Your task to perform on an android device: turn off notifications in google photos Image 0: 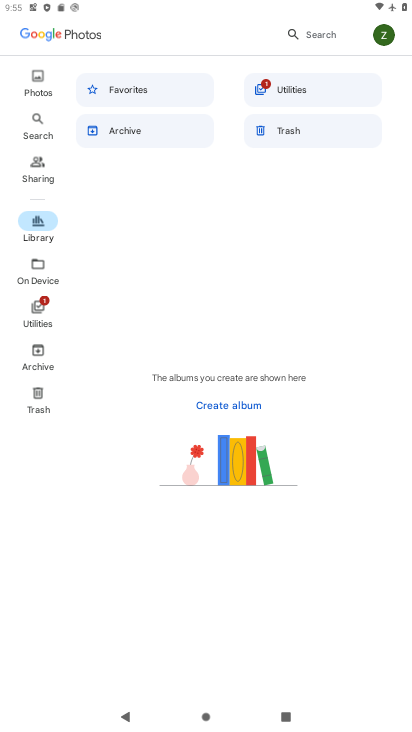
Step 0: press home button
Your task to perform on an android device: turn off notifications in google photos Image 1: 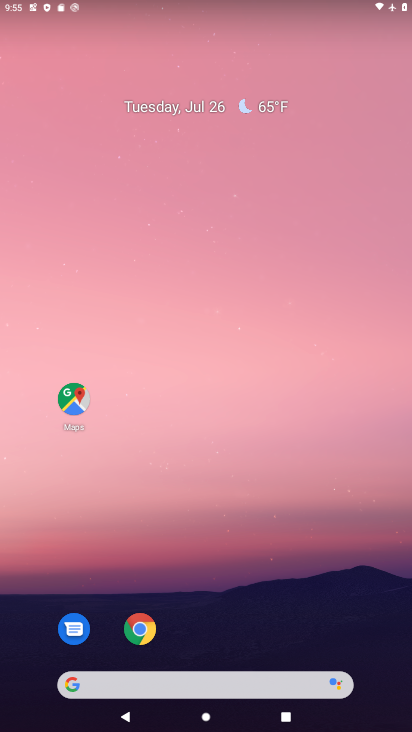
Step 1: drag from (308, 461) to (336, 24)
Your task to perform on an android device: turn off notifications in google photos Image 2: 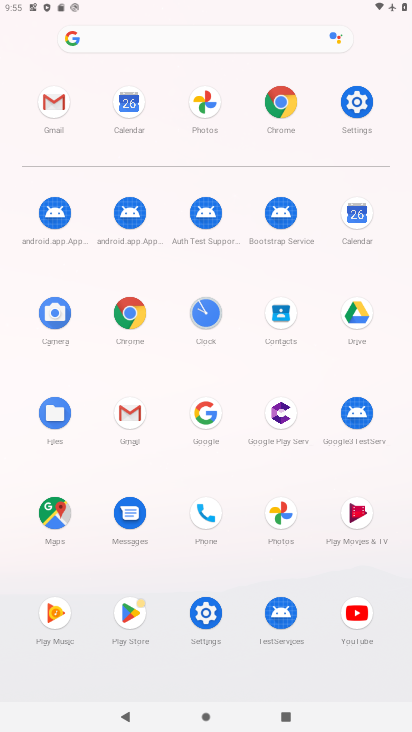
Step 2: click (286, 513)
Your task to perform on an android device: turn off notifications in google photos Image 3: 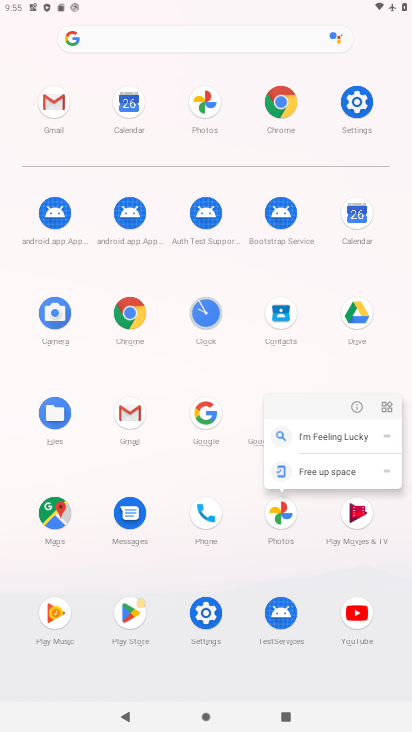
Step 3: click (280, 514)
Your task to perform on an android device: turn off notifications in google photos Image 4: 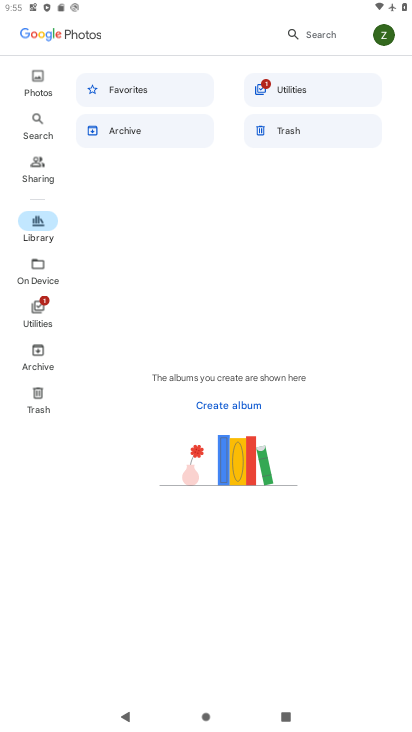
Step 4: click (391, 37)
Your task to perform on an android device: turn off notifications in google photos Image 5: 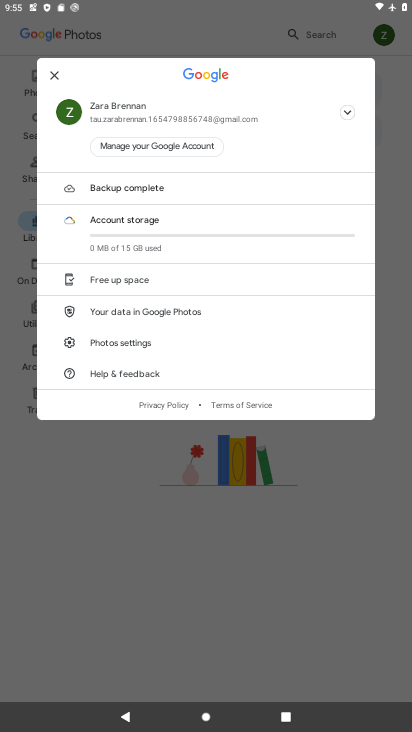
Step 5: click (142, 347)
Your task to perform on an android device: turn off notifications in google photos Image 6: 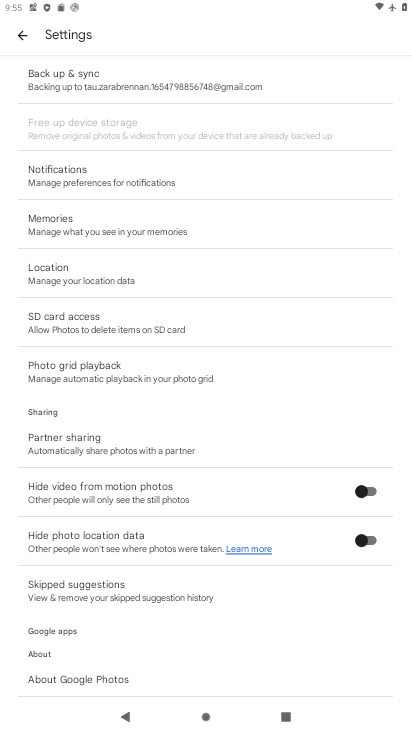
Step 6: click (116, 227)
Your task to perform on an android device: turn off notifications in google photos Image 7: 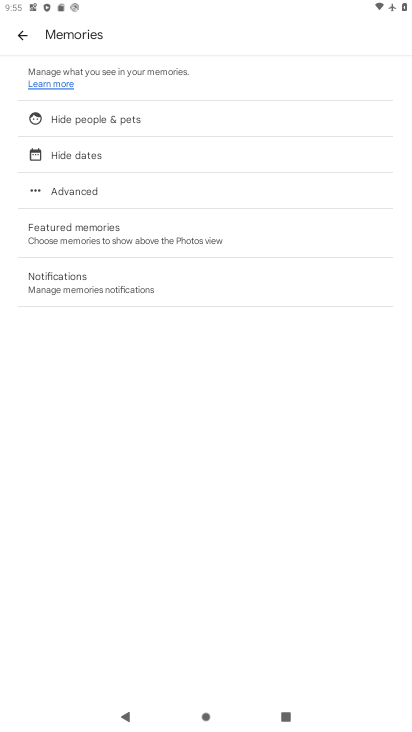
Step 7: click (23, 37)
Your task to perform on an android device: turn off notifications in google photos Image 8: 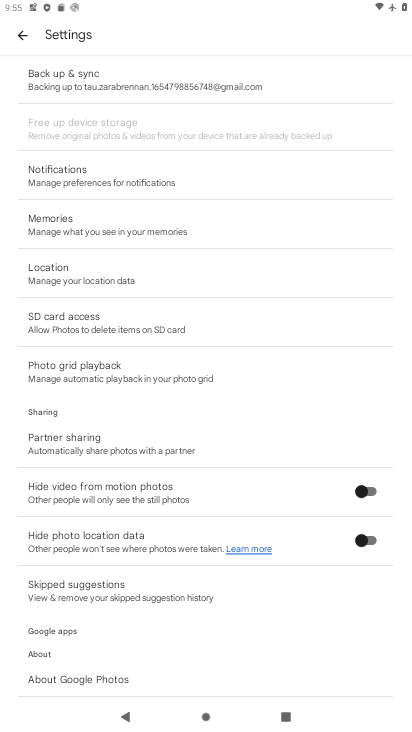
Step 8: click (108, 183)
Your task to perform on an android device: turn off notifications in google photos Image 9: 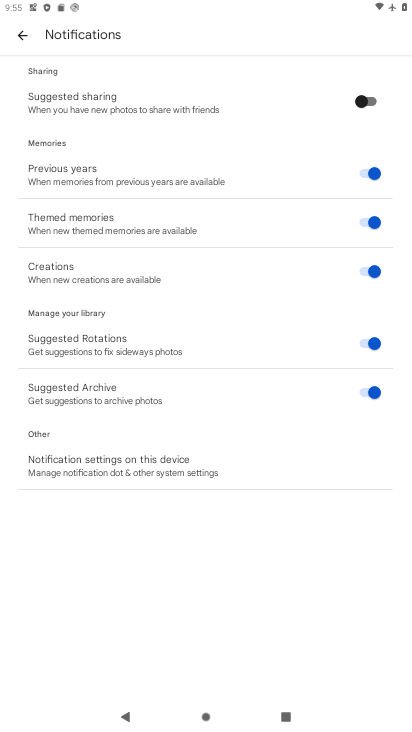
Step 9: click (129, 477)
Your task to perform on an android device: turn off notifications in google photos Image 10: 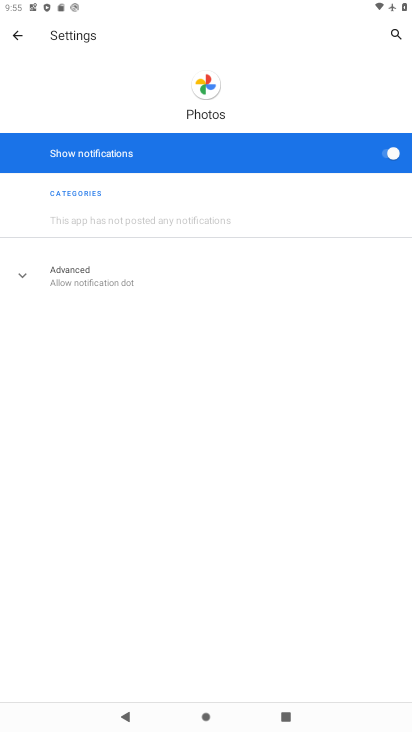
Step 10: click (381, 147)
Your task to perform on an android device: turn off notifications in google photos Image 11: 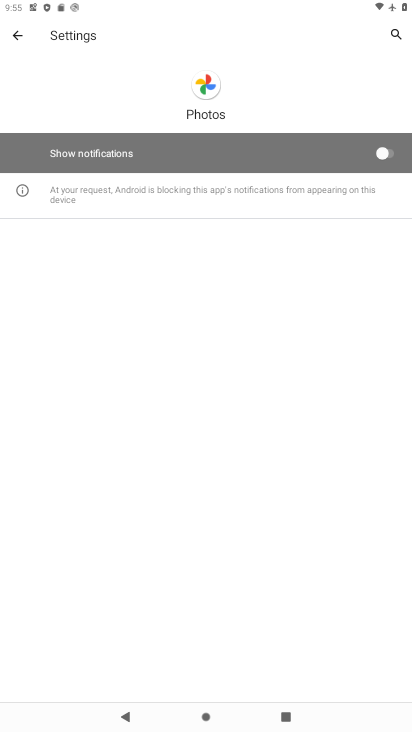
Step 11: task complete